Your task to perform on an android device: clear history in the chrome app Image 0: 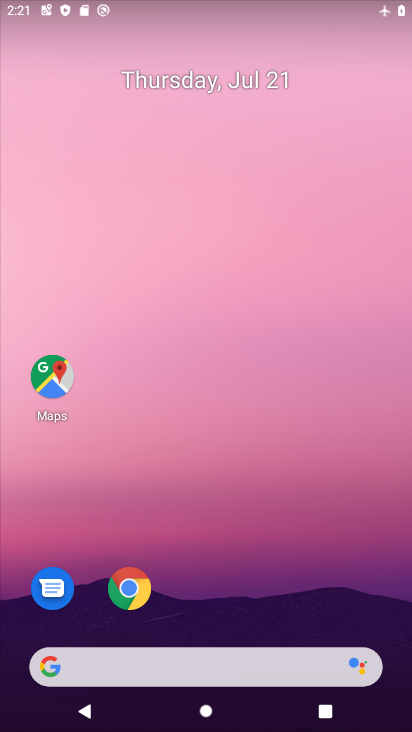
Step 0: click (328, 369)
Your task to perform on an android device: clear history in the chrome app Image 1: 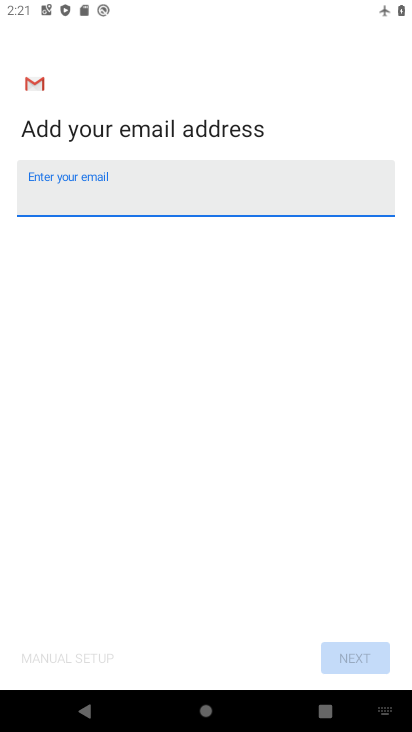
Step 1: press home button
Your task to perform on an android device: clear history in the chrome app Image 2: 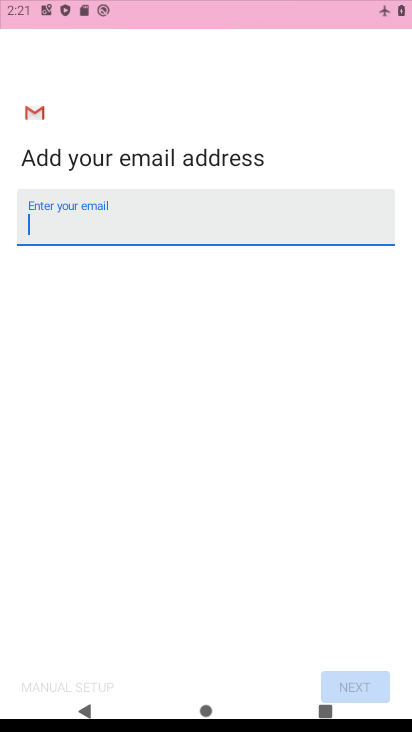
Step 2: drag from (172, 624) to (299, 82)
Your task to perform on an android device: clear history in the chrome app Image 3: 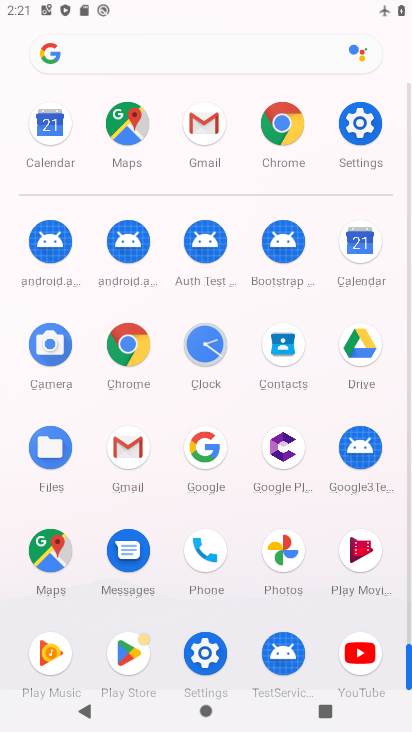
Step 3: click (125, 330)
Your task to perform on an android device: clear history in the chrome app Image 4: 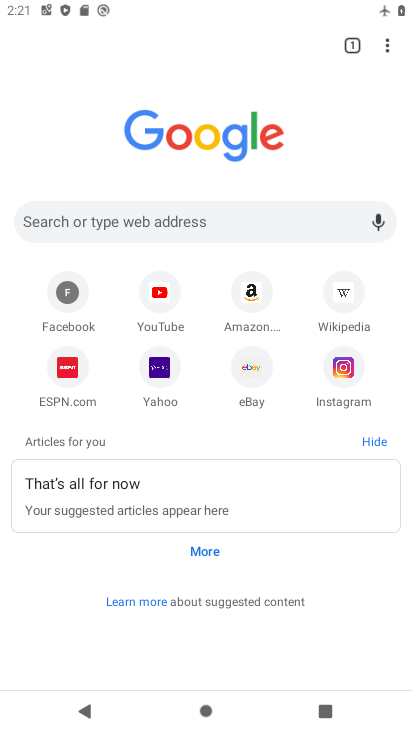
Step 4: task complete